Your task to perform on an android device: Search for Mexican restaurants on Maps Image 0: 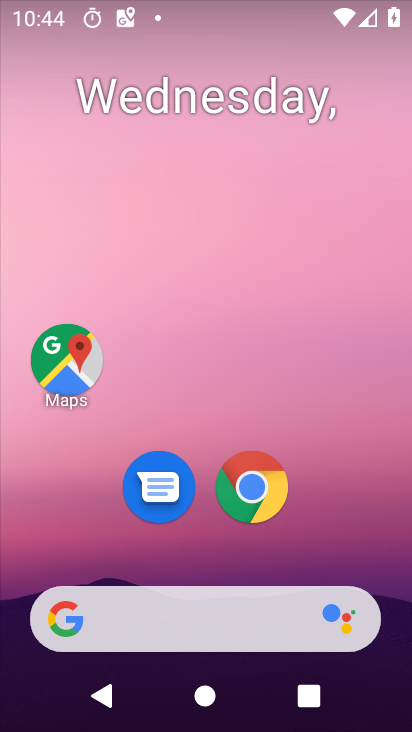
Step 0: drag from (310, 626) to (328, 38)
Your task to perform on an android device: Search for Mexican restaurants on Maps Image 1: 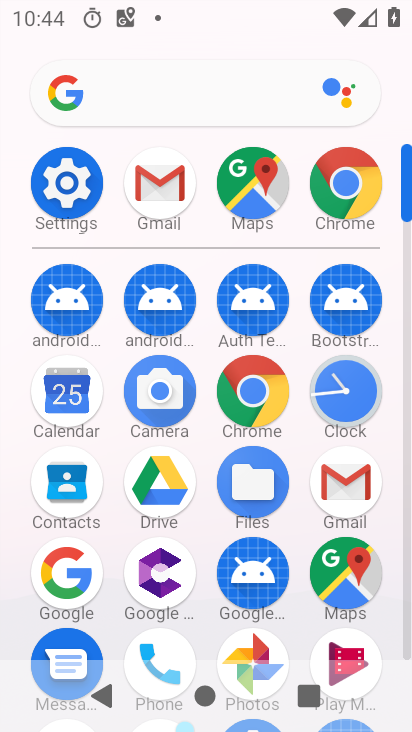
Step 1: click (353, 579)
Your task to perform on an android device: Search for Mexican restaurants on Maps Image 2: 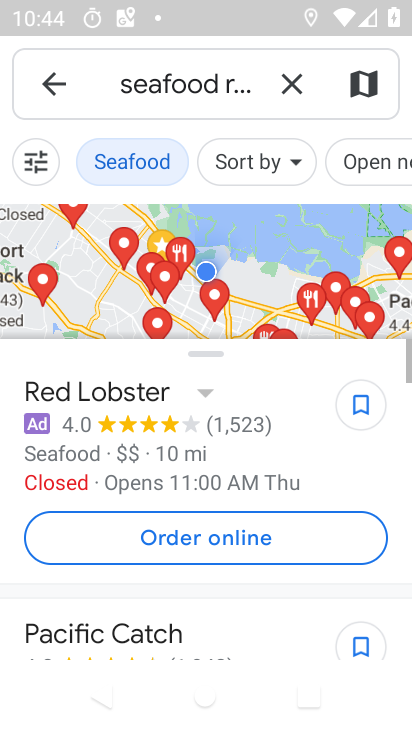
Step 2: press back button
Your task to perform on an android device: Search for Mexican restaurants on Maps Image 3: 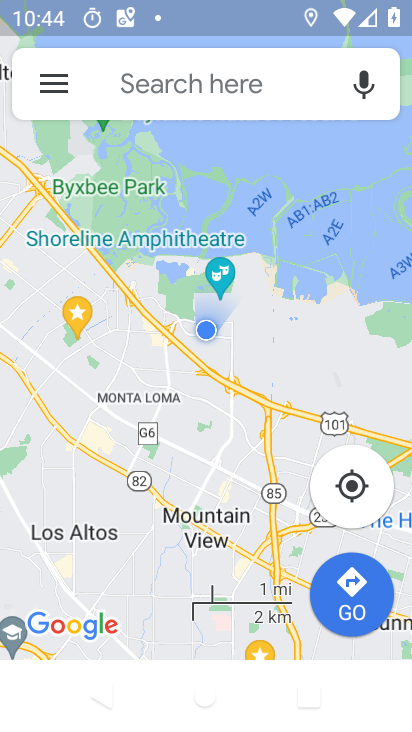
Step 3: click (200, 49)
Your task to perform on an android device: Search for Mexican restaurants on Maps Image 4: 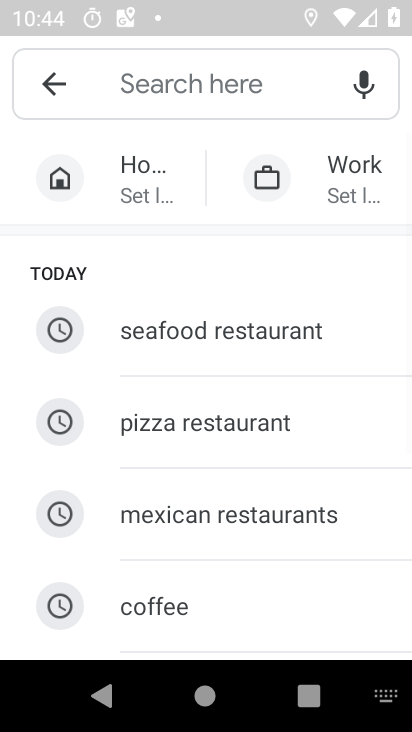
Step 4: click (255, 493)
Your task to perform on an android device: Search for Mexican restaurants on Maps Image 5: 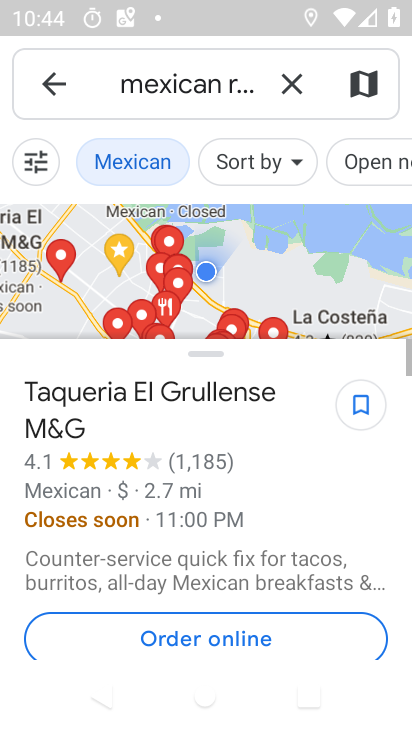
Step 5: task complete